Your task to perform on an android device: Go to wifi settings Image 0: 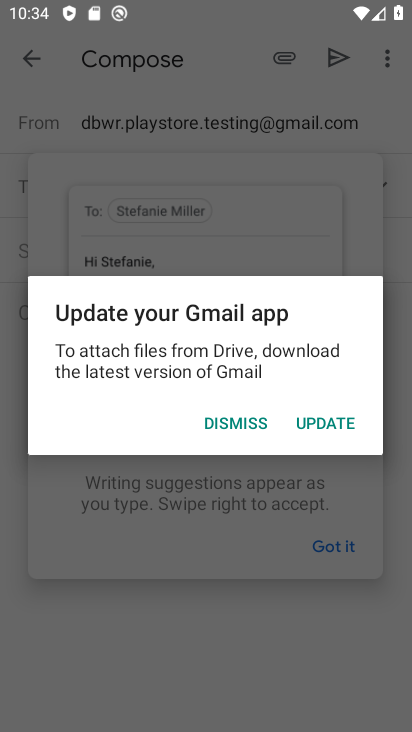
Step 0: press home button
Your task to perform on an android device: Go to wifi settings Image 1: 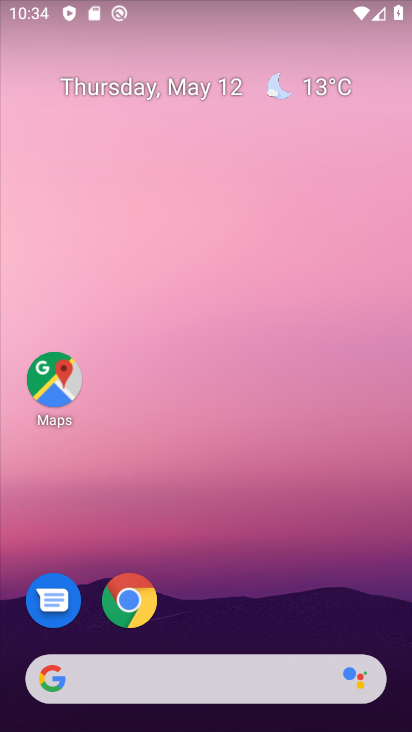
Step 1: drag from (388, 638) to (294, 165)
Your task to perform on an android device: Go to wifi settings Image 2: 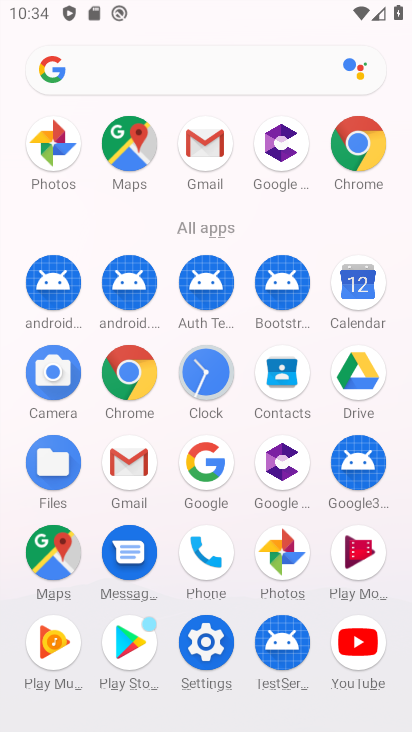
Step 2: click (203, 645)
Your task to perform on an android device: Go to wifi settings Image 3: 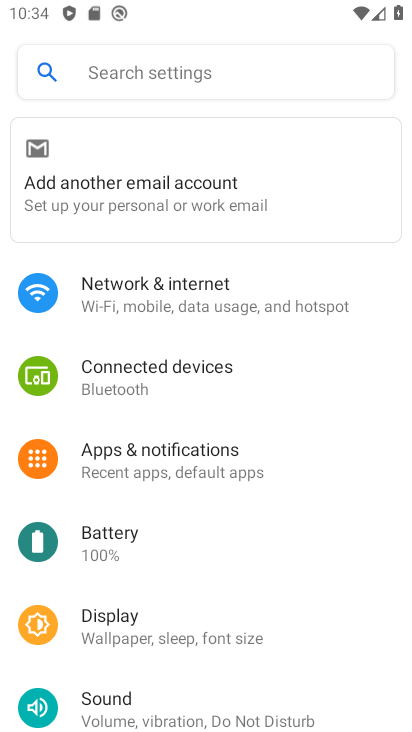
Step 3: click (114, 288)
Your task to perform on an android device: Go to wifi settings Image 4: 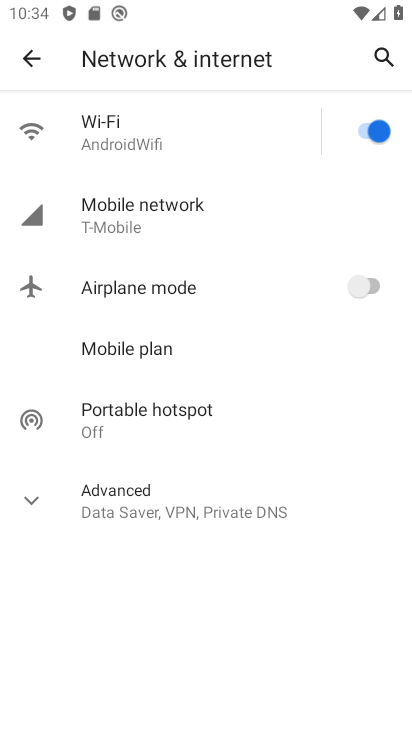
Step 4: click (87, 125)
Your task to perform on an android device: Go to wifi settings Image 5: 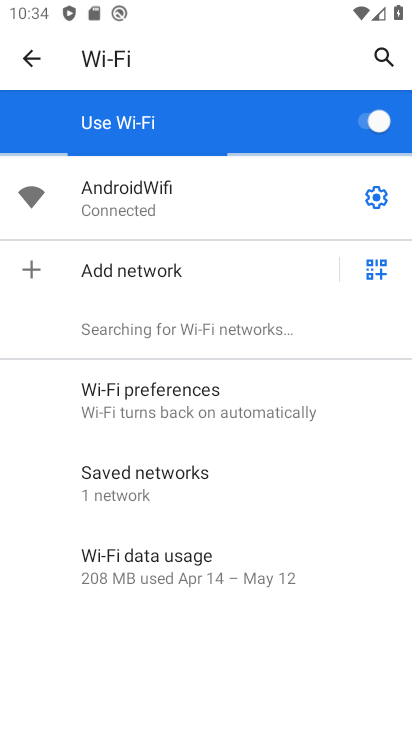
Step 5: click (378, 193)
Your task to perform on an android device: Go to wifi settings Image 6: 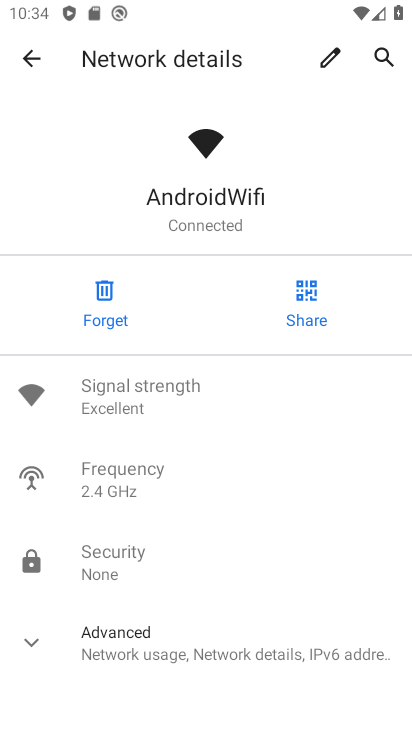
Step 6: click (31, 633)
Your task to perform on an android device: Go to wifi settings Image 7: 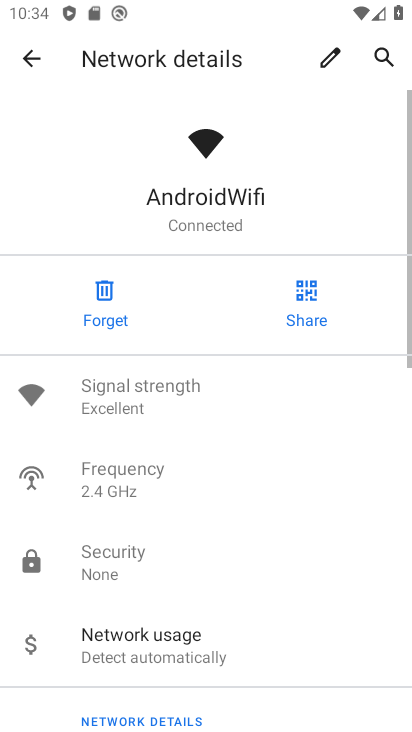
Step 7: task complete